Your task to perform on an android device: toggle airplane mode Image 0: 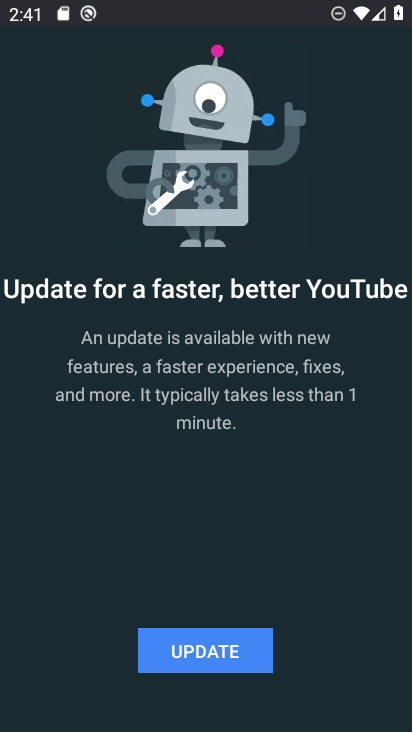
Step 0: press home button
Your task to perform on an android device: toggle airplane mode Image 1: 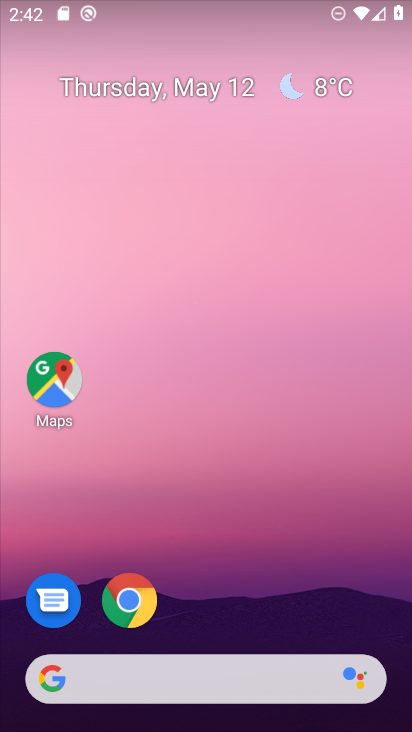
Step 1: drag from (212, 727) to (206, 24)
Your task to perform on an android device: toggle airplane mode Image 2: 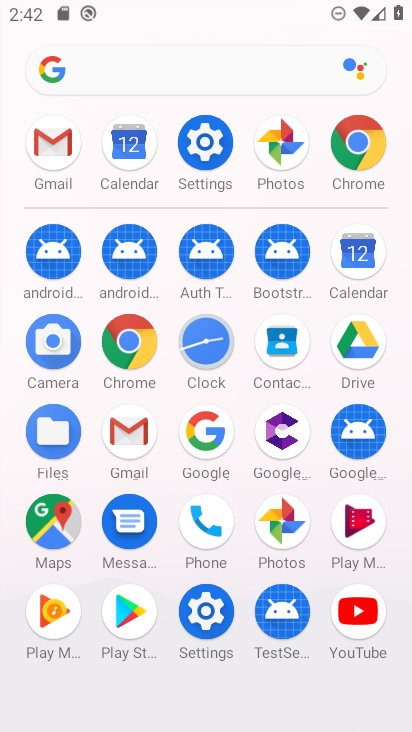
Step 2: click (204, 142)
Your task to perform on an android device: toggle airplane mode Image 3: 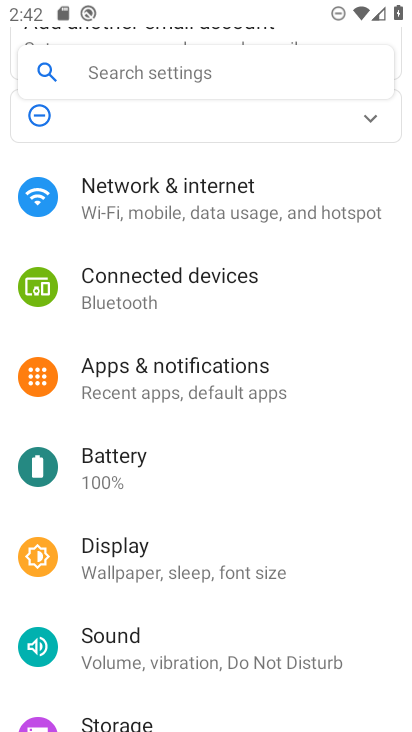
Step 3: task complete